Your task to perform on an android device: see creations saved in the google photos Image 0: 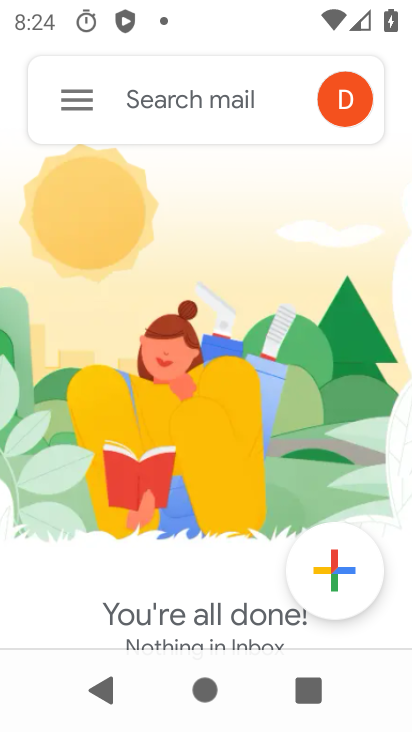
Step 0: press home button
Your task to perform on an android device: see creations saved in the google photos Image 1: 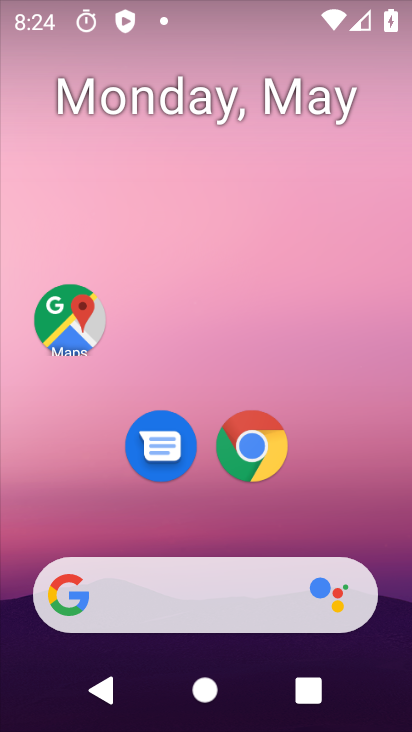
Step 1: drag from (334, 536) to (325, 3)
Your task to perform on an android device: see creations saved in the google photos Image 2: 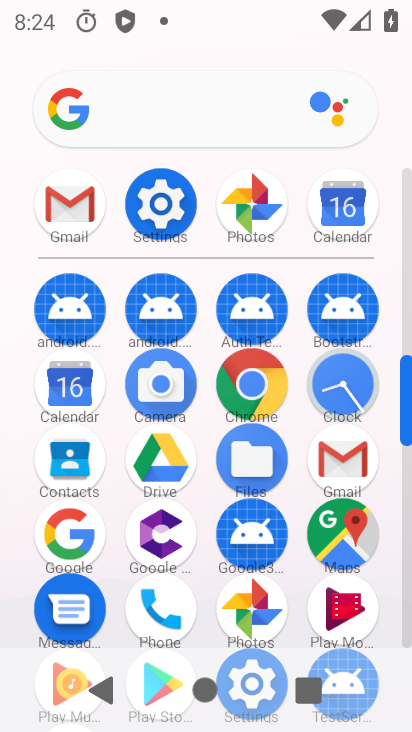
Step 2: click (259, 212)
Your task to perform on an android device: see creations saved in the google photos Image 3: 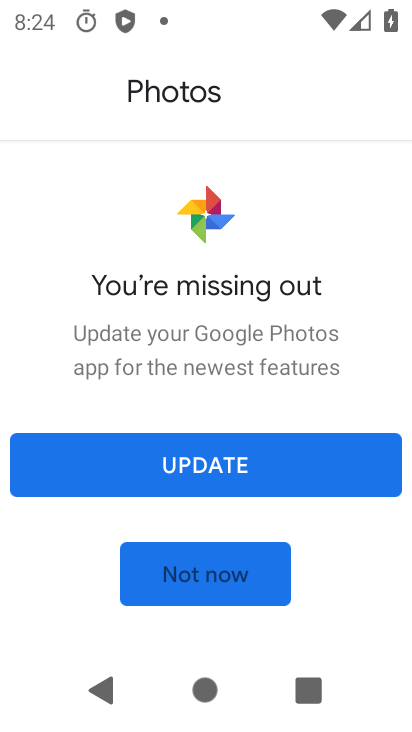
Step 3: click (177, 586)
Your task to perform on an android device: see creations saved in the google photos Image 4: 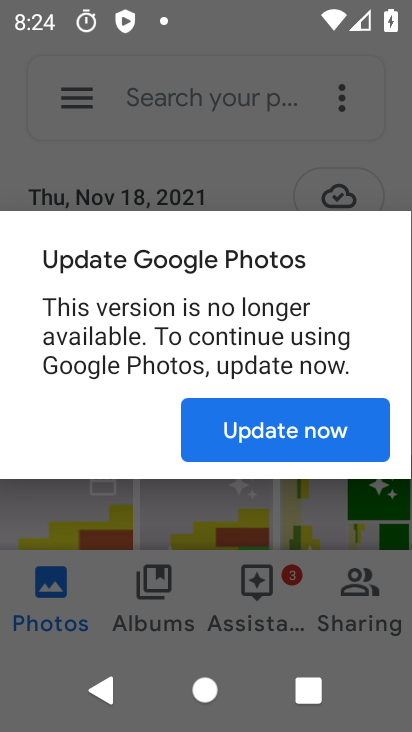
Step 4: click (238, 436)
Your task to perform on an android device: see creations saved in the google photos Image 5: 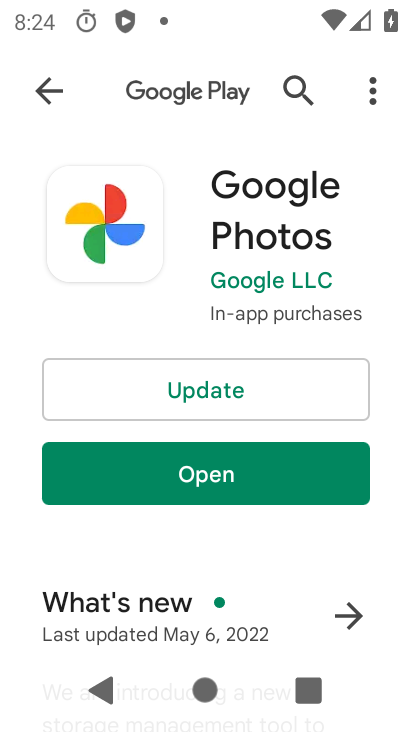
Step 5: click (180, 488)
Your task to perform on an android device: see creations saved in the google photos Image 6: 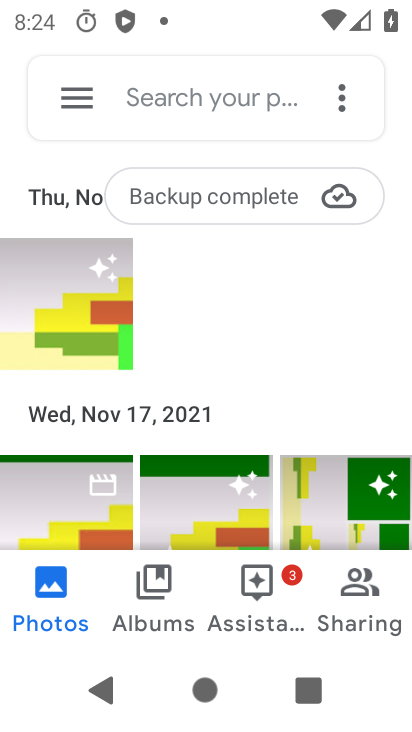
Step 6: click (152, 86)
Your task to perform on an android device: see creations saved in the google photos Image 7: 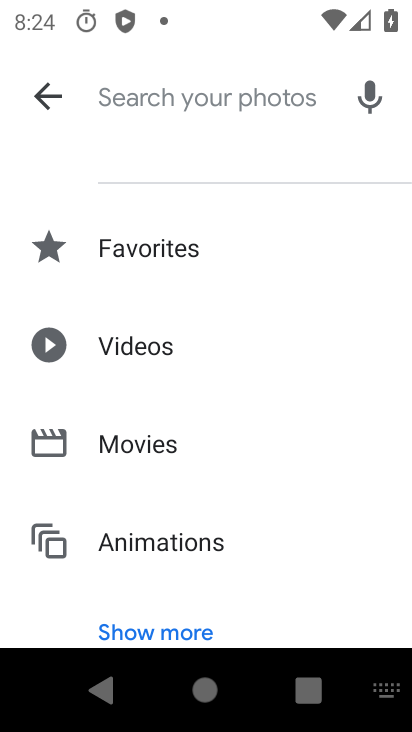
Step 7: drag from (238, 547) to (230, 157)
Your task to perform on an android device: see creations saved in the google photos Image 8: 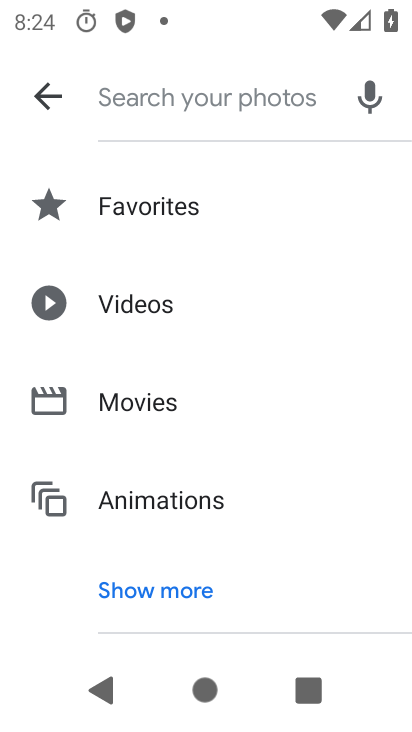
Step 8: click (152, 589)
Your task to perform on an android device: see creations saved in the google photos Image 9: 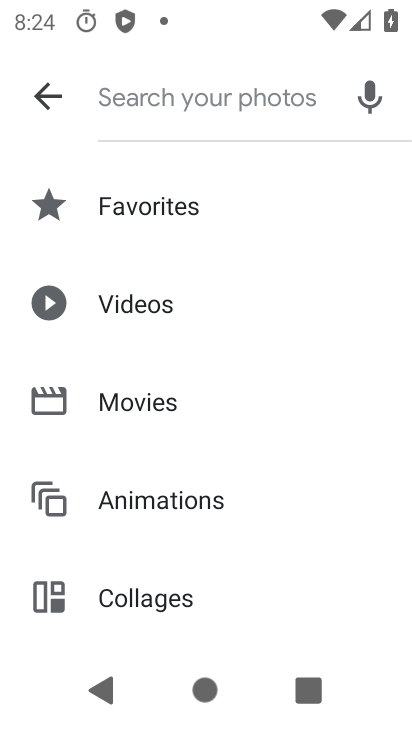
Step 9: drag from (215, 585) to (230, 233)
Your task to perform on an android device: see creations saved in the google photos Image 10: 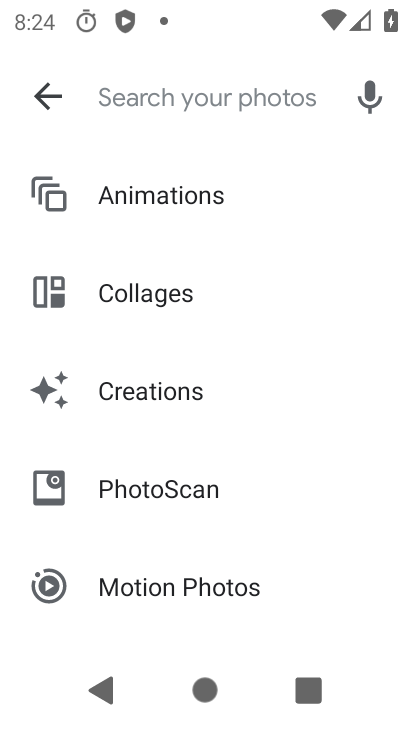
Step 10: click (149, 393)
Your task to perform on an android device: see creations saved in the google photos Image 11: 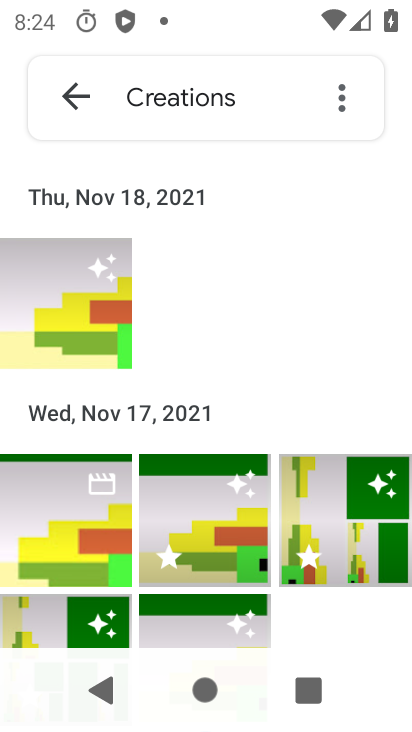
Step 11: task complete